Your task to perform on an android device: find snoozed emails in the gmail app Image 0: 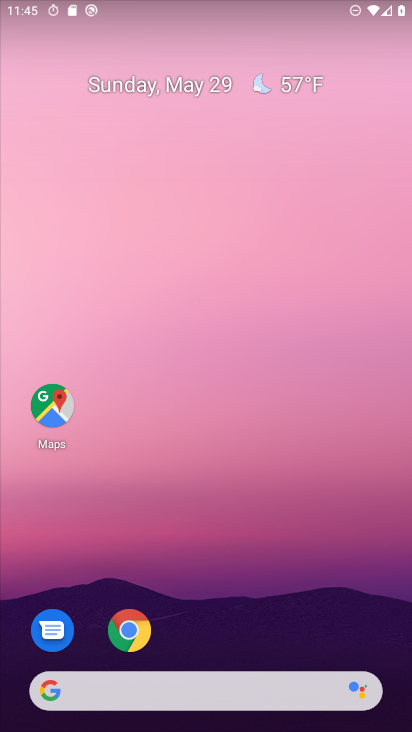
Step 0: drag from (323, 652) to (261, 243)
Your task to perform on an android device: find snoozed emails in the gmail app Image 1: 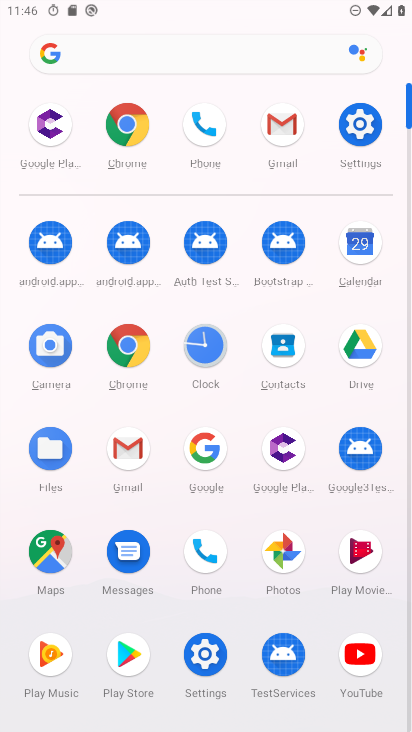
Step 1: click (122, 453)
Your task to perform on an android device: find snoozed emails in the gmail app Image 2: 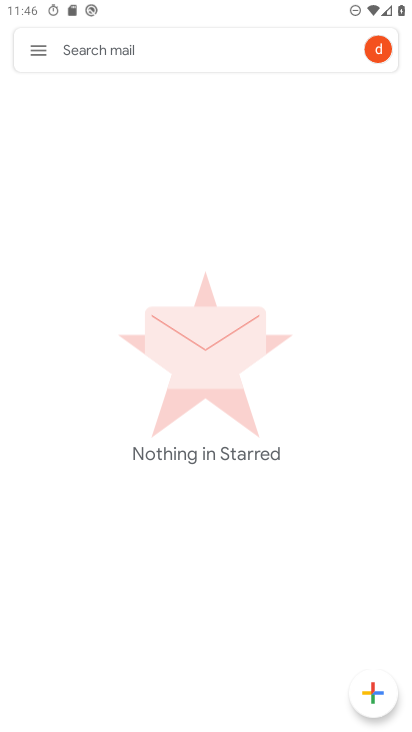
Step 2: click (39, 41)
Your task to perform on an android device: find snoozed emails in the gmail app Image 3: 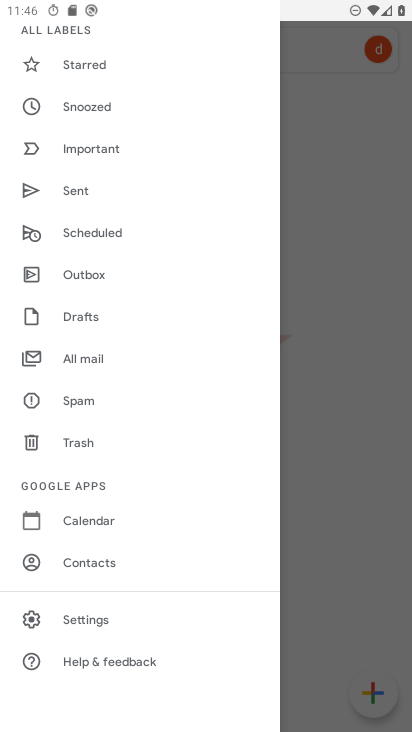
Step 3: click (94, 101)
Your task to perform on an android device: find snoozed emails in the gmail app Image 4: 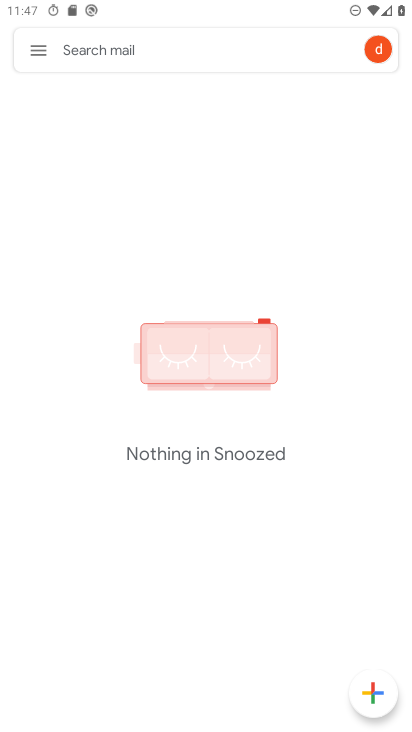
Step 4: click (17, 51)
Your task to perform on an android device: find snoozed emails in the gmail app Image 5: 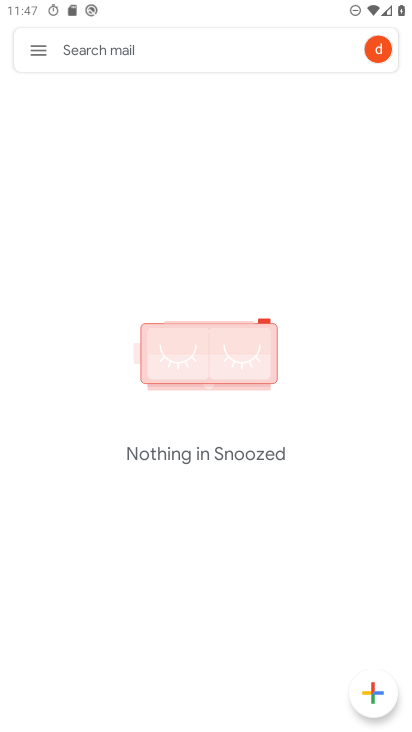
Step 5: click (38, 39)
Your task to perform on an android device: find snoozed emails in the gmail app Image 6: 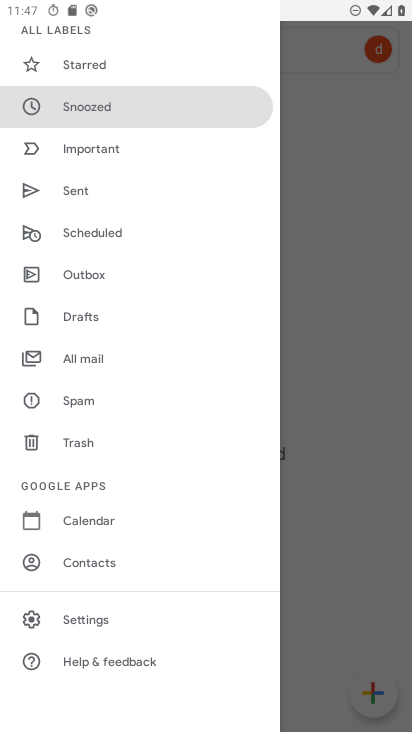
Step 6: click (95, 112)
Your task to perform on an android device: find snoozed emails in the gmail app Image 7: 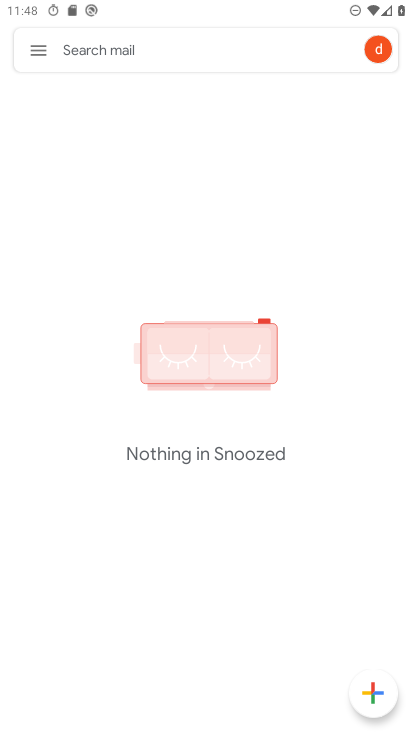
Step 7: task complete